Your task to perform on an android device: set the stopwatch Image 0: 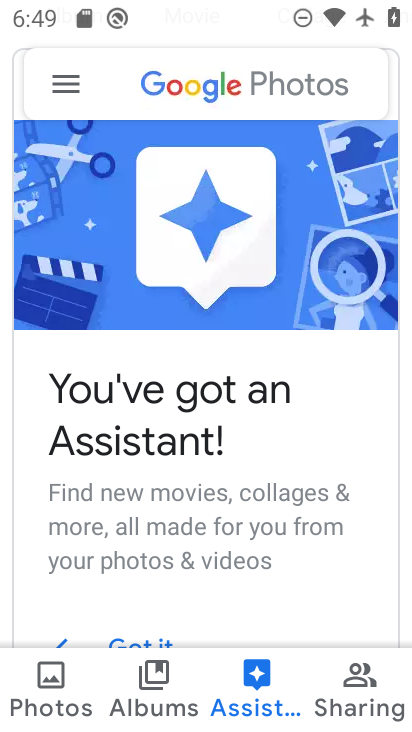
Step 0: press home button
Your task to perform on an android device: set the stopwatch Image 1: 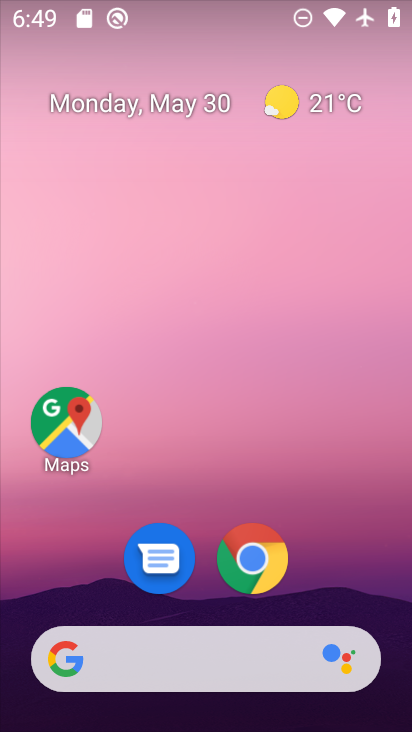
Step 1: drag from (323, 516) to (263, 23)
Your task to perform on an android device: set the stopwatch Image 2: 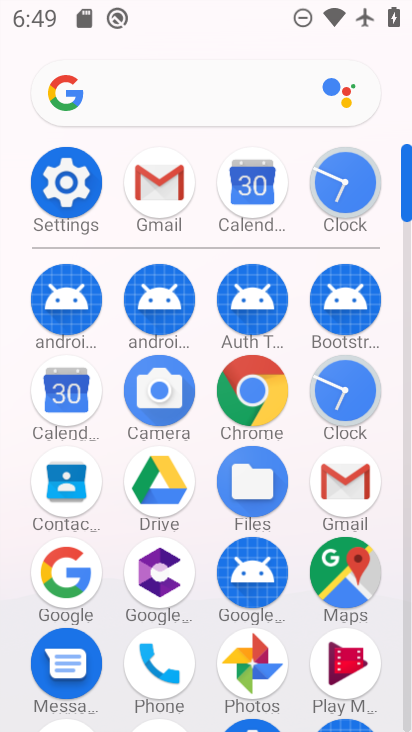
Step 2: click (341, 189)
Your task to perform on an android device: set the stopwatch Image 3: 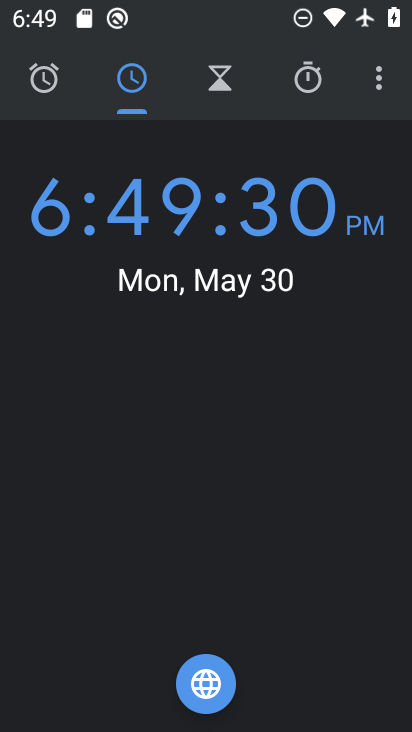
Step 3: click (310, 79)
Your task to perform on an android device: set the stopwatch Image 4: 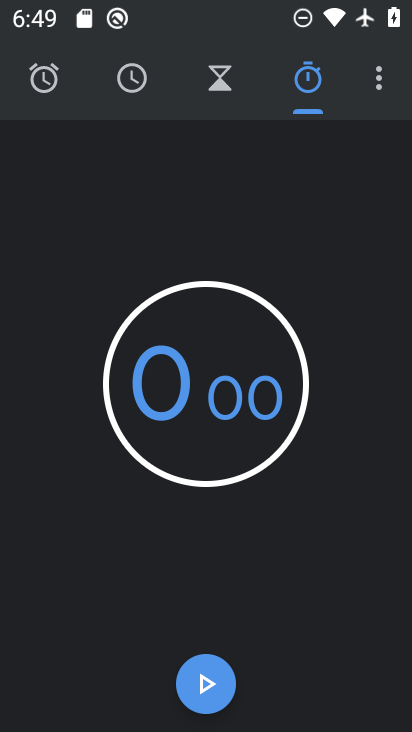
Step 4: task complete